Your task to perform on an android device: add a contact in the contacts app Image 0: 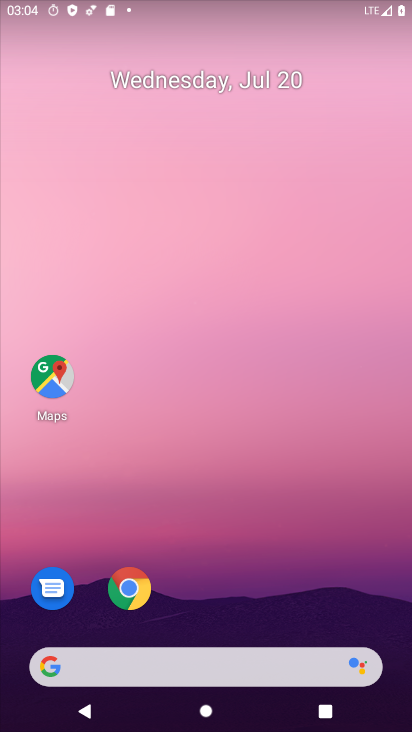
Step 0: drag from (190, 618) to (238, 53)
Your task to perform on an android device: add a contact in the contacts app Image 1: 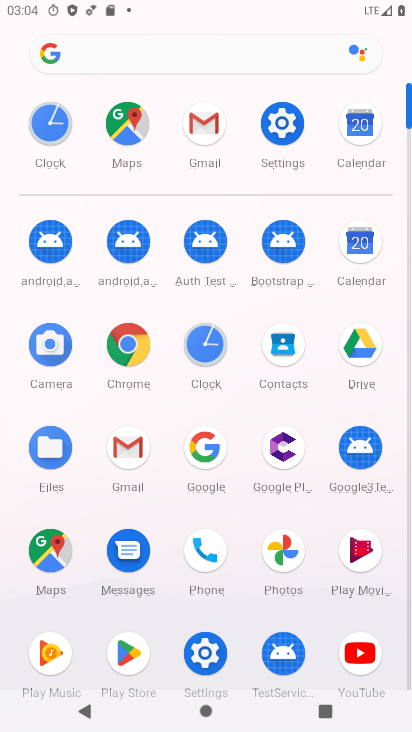
Step 1: click (292, 346)
Your task to perform on an android device: add a contact in the contacts app Image 2: 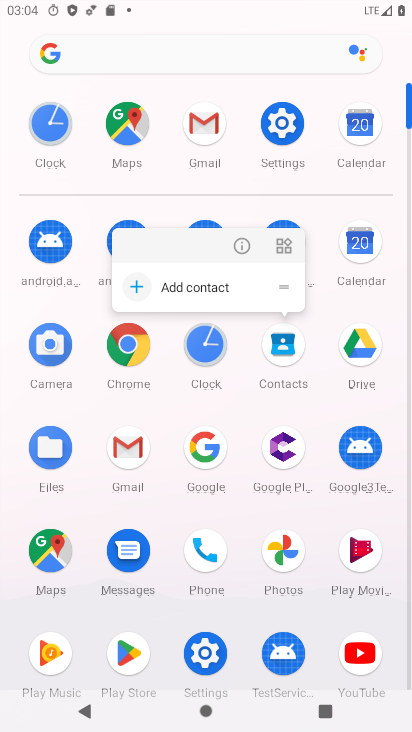
Step 2: click (245, 248)
Your task to perform on an android device: add a contact in the contacts app Image 3: 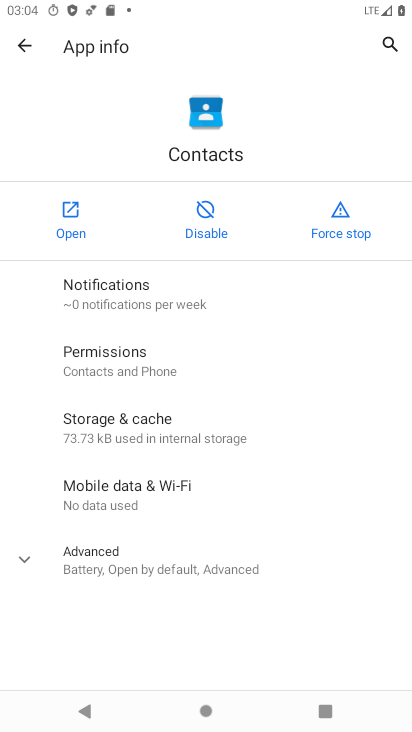
Step 3: click (59, 229)
Your task to perform on an android device: add a contact in the contacts app Image 4: 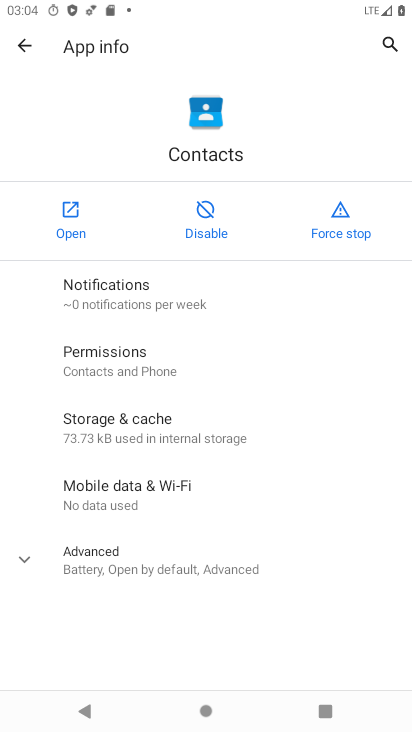
Step 4: click (57, 228)
Your task to perform on an android device: add a contact in the contacts app Image 5: 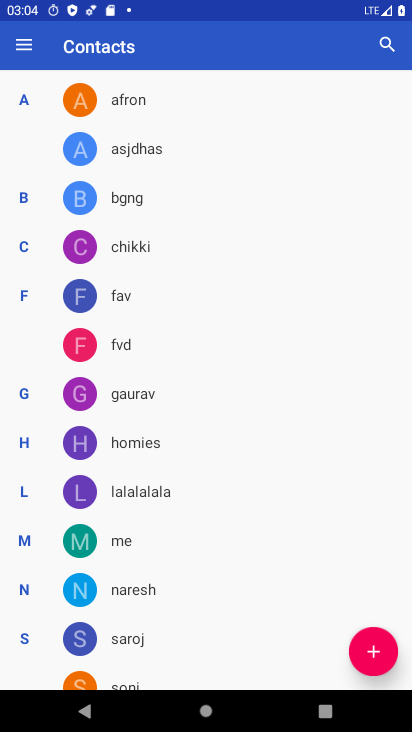
Step 5: click (370, 654)
Your task to perform on an android device: add a contact in the contacts app Image 6: 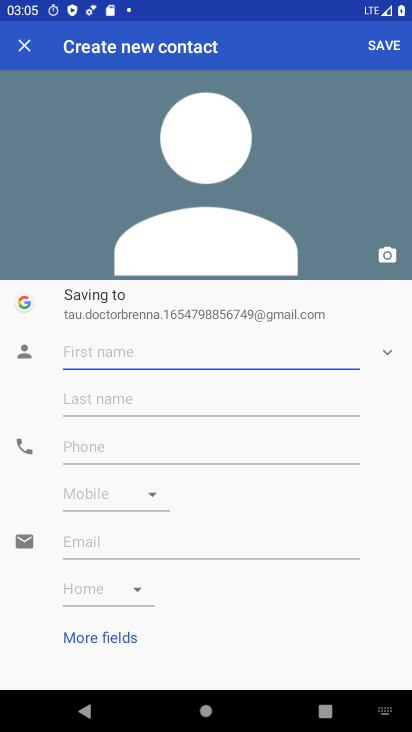
Step 6: type "mnmk"
Your task to perform on an android device: add a contact in the contacts app Image 7: 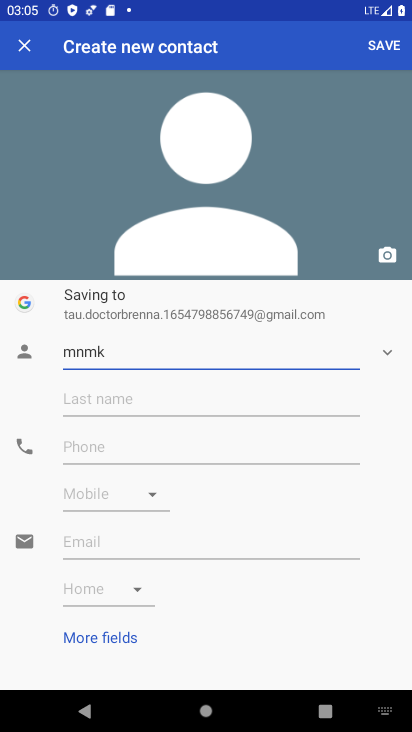
Step 7: click (104, 457)
Your task to perform on an android device: add a contact in the contacts app Image 8: 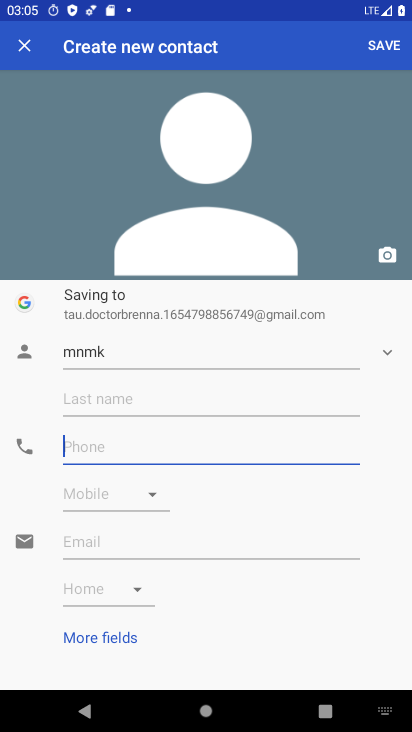
Step 8: type "78866765"
Your task to perform on an android device: add a contact in the contacts app Image 9: 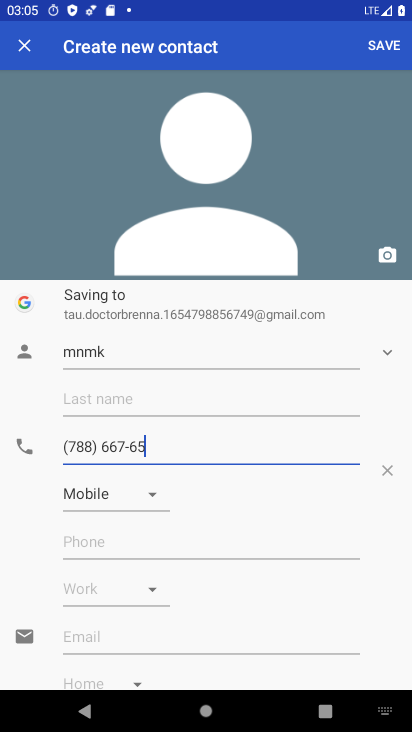
Step 9: click (387, 43)
Your task to perform on an android device: add a contact in the contacts app Image 10: 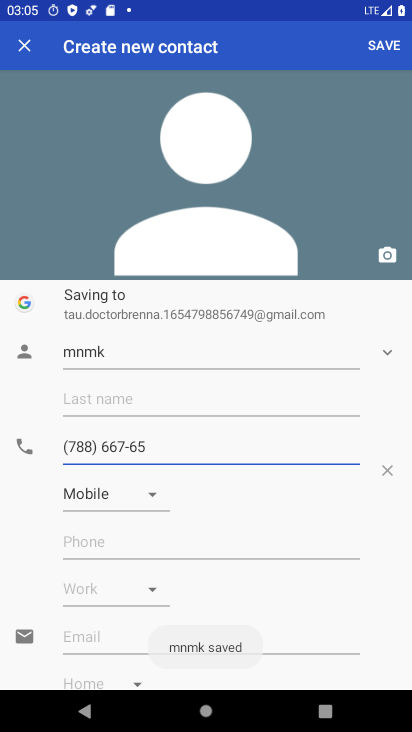
Step 10: task complete